Your task to perform on an android device: Clear the shopping cart on walmart. Search for "macbook air" on walmart, select the first entry, add it to the cart, then select checkout. Image 0: 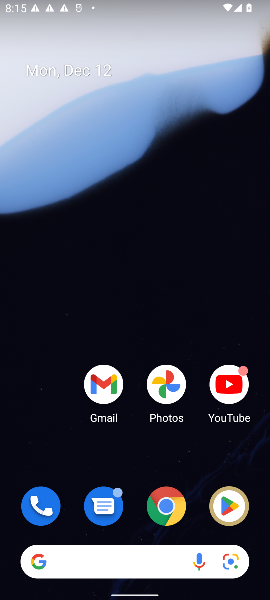
Step 0: click (105, 572)
Your task to perform on an android device: Clear the shopping cart on walmart. Search for "macbook air" on walmart, select the first entry, add it to the cart, then select checkout. Image 1: 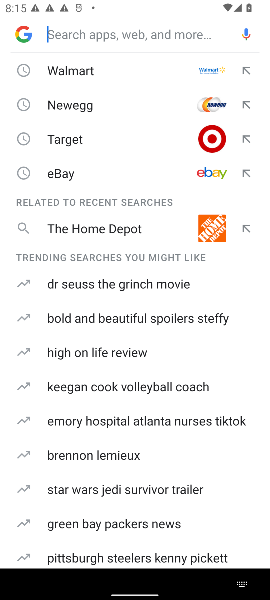
Step 1: type "walmart"
Your task to perform on an android device: Clear the shopping cart on walmart. Search for "macbook air" on walmart, select the first entry, add it to the cart, then select checkout. Image 2: 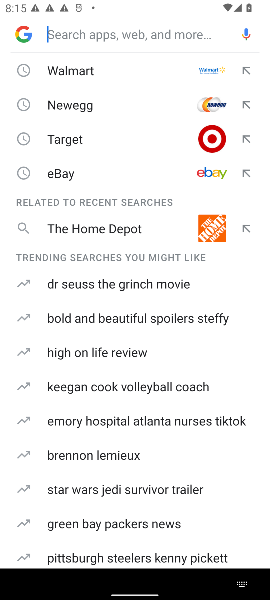
Step 2: click (122, 79)
Your task to perform on an android device: Clear the shopping cart on walmart. Search for "macbook air" on walmart, select the first entry, add it to the cart, then select checkout. Image 3: 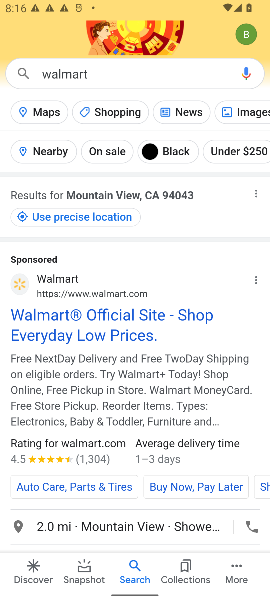
Step 3: click (119, 307)
Your task to perform on an android device: Clear the shopping cart on walmart. Search for "macbook air" on walmart, select the first entry, add it to the cart, then select checkout. Image 4: 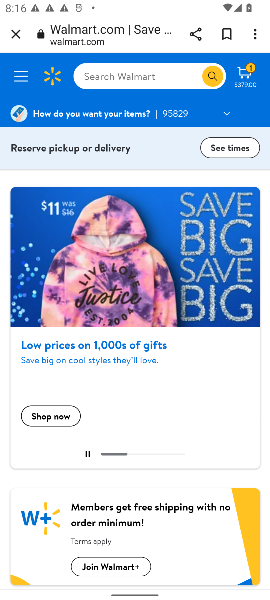
Step 4: click (95, 76)
Your task to perform on an android device: Clear the shopping cart on walmart. Search for "macbook air" on walmart, select the first entry, add it to the cart, then select checkout. Image 5: 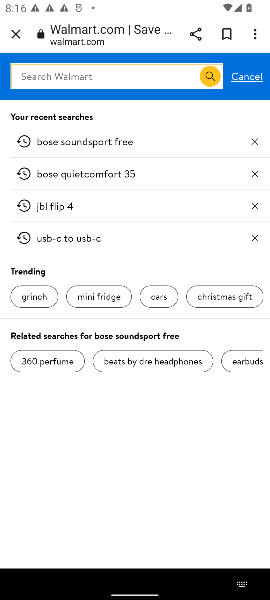
Step 5: click (248, 76)
Your task to perform on an android device: Clear the shopping cart on walmart. Search for "macbook air" on walmart, select the first entry, add it to the cart, then select checkout. Image 6: 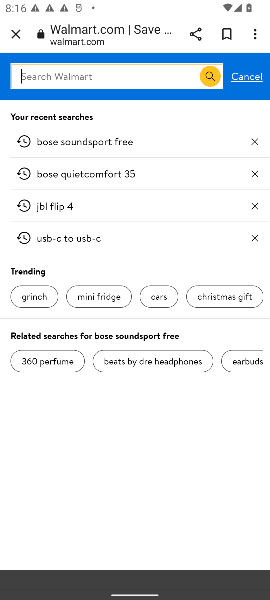
Step 6: click (248, 76)
Your task to perform on an android device: Clear the shopping cart on walmart. Search for "macbook air" on walmart, select the first entry, add it to the cart, then select checkout. Image 7: 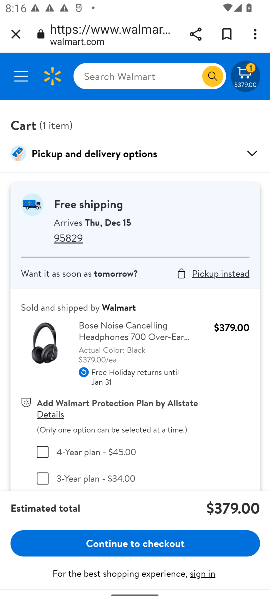
Step 7: drag from (147, 499) to (159, 230)
Your task to perform on an android device: Clear the shopping cart on walmart. Search for "macbook air" on walmart, select the first entry, add it to the cart, then select checkout. Image 8: 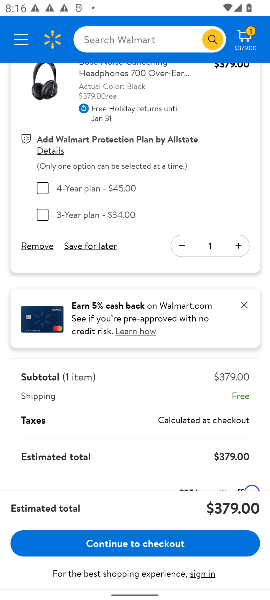
Step 8: click (35, 247)
Your task to perform on an android device: Clear the shopping cart on walmart. Search for "macbook air" on walmart, select the first entry, add it to the cart, then select checkout. Image 9: 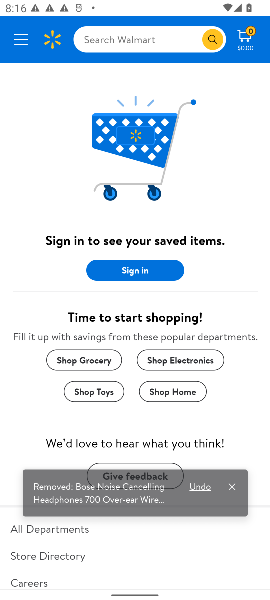
Step 9: click (141, 49)
Your task to perform on an android device: Clear the shopping cart on walmart. Search for "macbook air" on walmart, select the first entry, add it to the cart, then select checkout. Image 10: 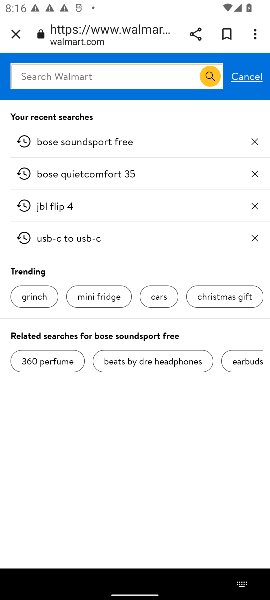
Step 10: type "macbook air"
Your task to perform on an android device: Clear the shopping cart on walmart. Search for "macbook air" on walmart, select the first entry, add it to the cart, then select checkout. Image 11: 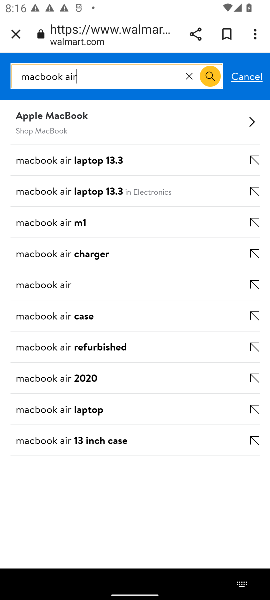
Step 11: click (209, 86)
Your task to perform on an android device: Clear the shopping cart on walmart. Search for "macbook air" on walmart, select the first entry, add it to the cart, then select checkout. Image 12: 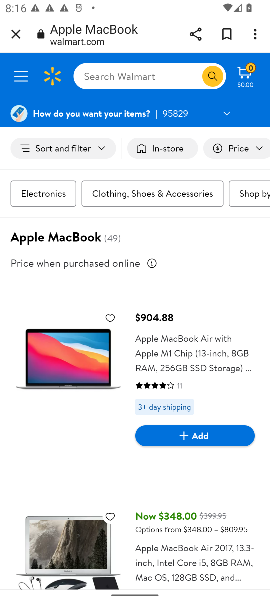
Step 12: click (195, 437)
Your task to perform on an android device: Clear the shopping cart on walmart. Search for "macbook air" on walmart, select the first entry, add it to the cart, then select checkout. Image 13: 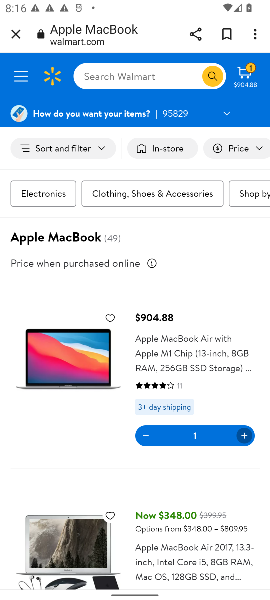
Step 13: task complete